Your task to perform on an android device: Open calendar and show me the first week of next month Image 0: 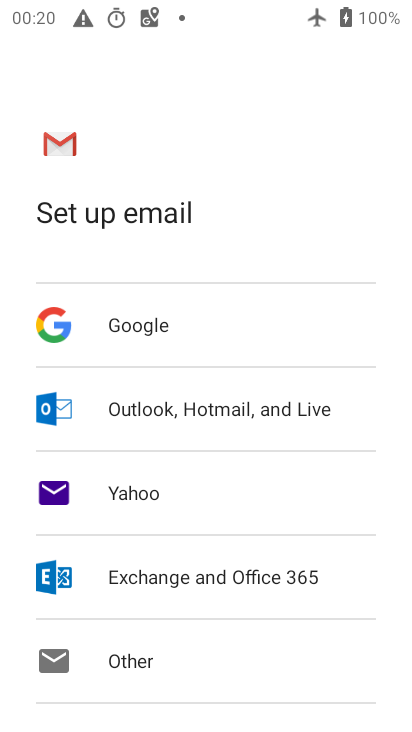
Step 0: press back button
Your task to perform on an android device: Open calendar and show me the first week of next month Image 1: 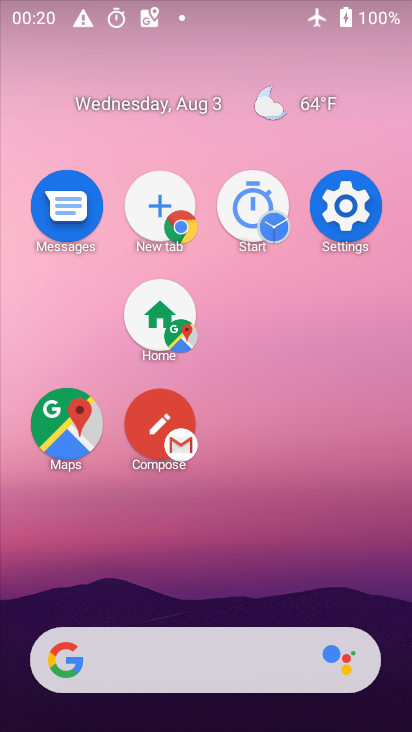
Step 1: drag from (220, 541) to (179, 94)
Your task to perform on an android device: Open calendar and show me the first week of next month Image 2: 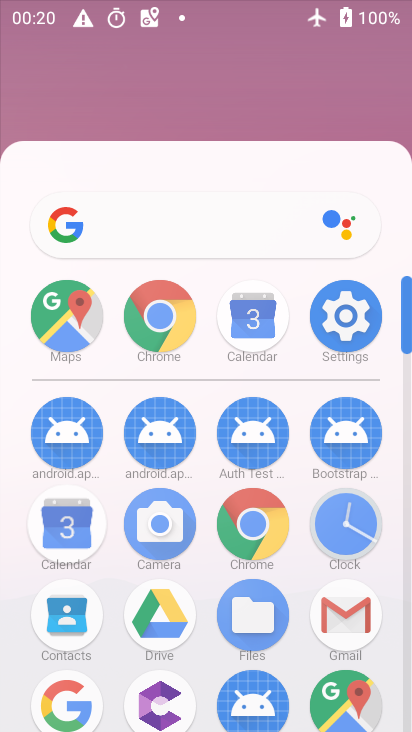
Step 2: drag from (267, 446) to (267, 112)
Your task to perform on an android device: Open calendar and show me the first week of next month Image 3: 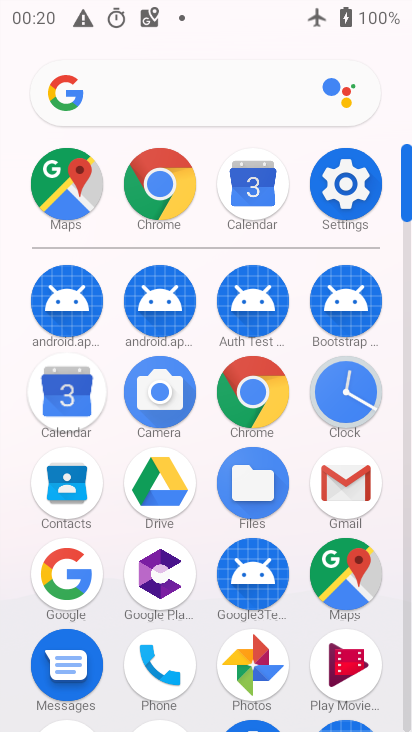
Step 3: drag from (265, 601) to (264, 158)
Your task to perform on an android device: Open calendar and show me the first week of next month Image 4: 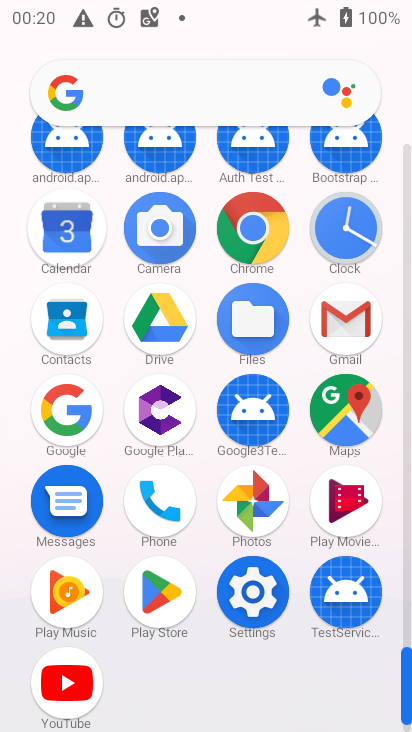
Step 4: click (73, 231)
Your task to perform on an android device: Open calendar and show me the first week of next month Image 5: 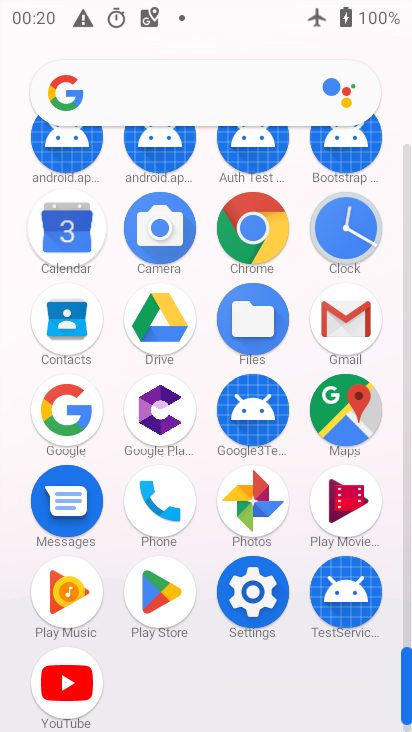
Step 5: click (80, 231)
Your task to perform on an android device: Open calendar and show me the first week of next month Image 6: 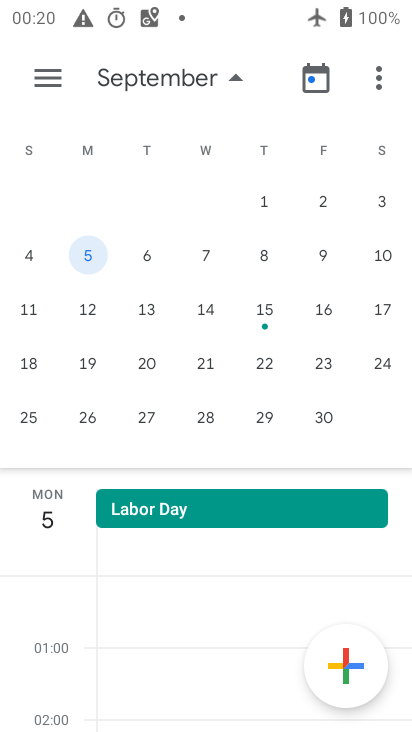
Step 6: click (250, 197)
Your task to perform on an android device: Open calendar and show me the first week of next month Image 7: 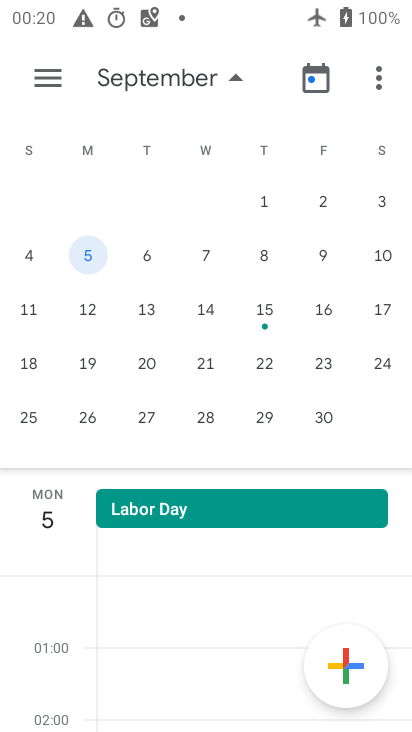
Step 7: click (256, 194)
Your task to perform on an android device: Open calendar and show me the first week of next month Image 8: 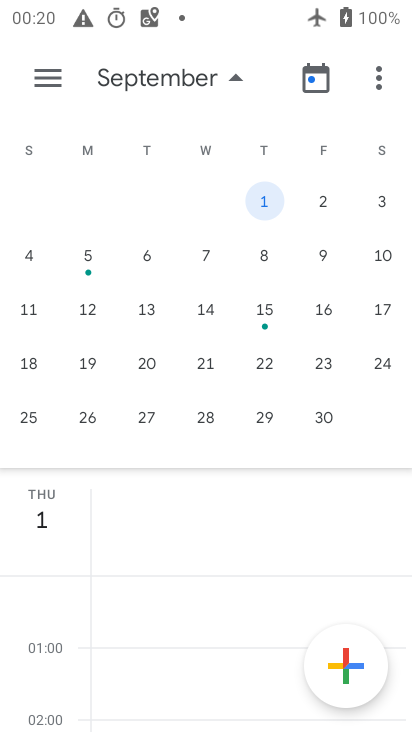
Step 8: click (261, 193)
Your task to perform on an android device: Open calendar and show me the first week of next month Image 9: 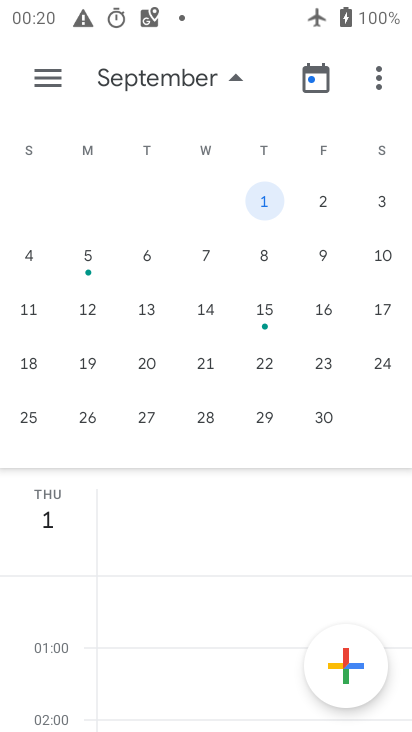
Step 9: click (262, 194)
Your task to perform on an android device: Open calendar and show me the first week of next month Image 10: 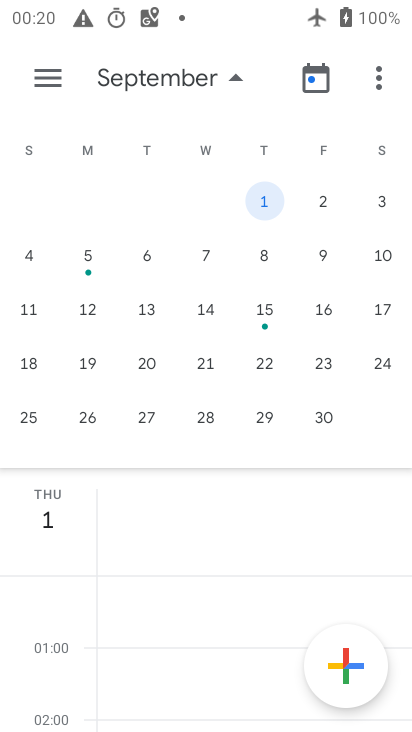
Step 10: task complete